Your task to perform on an android device: change text size in settings app Image 0: 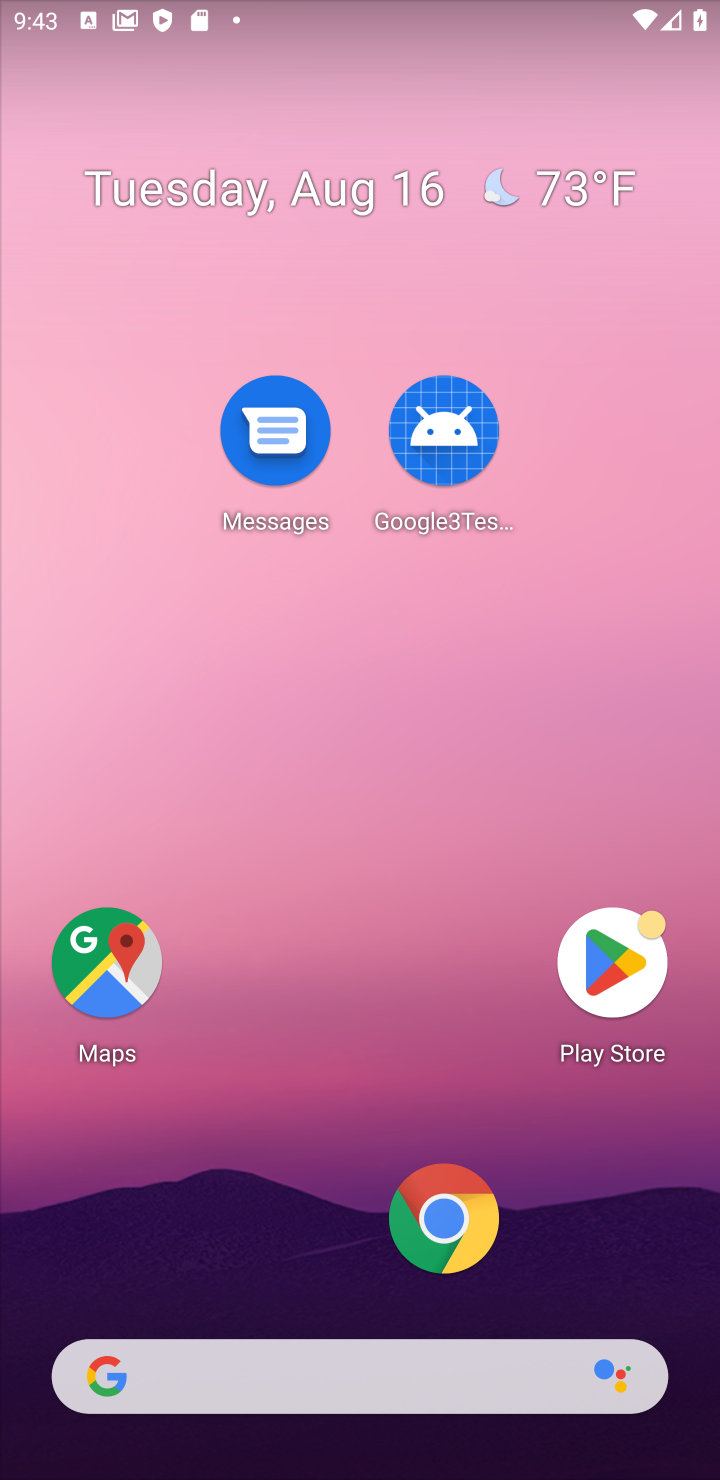
Step 0: drag from (335, 402) to (305, 37)
Your task to perform on an android device: change text size in settings app Image 1: 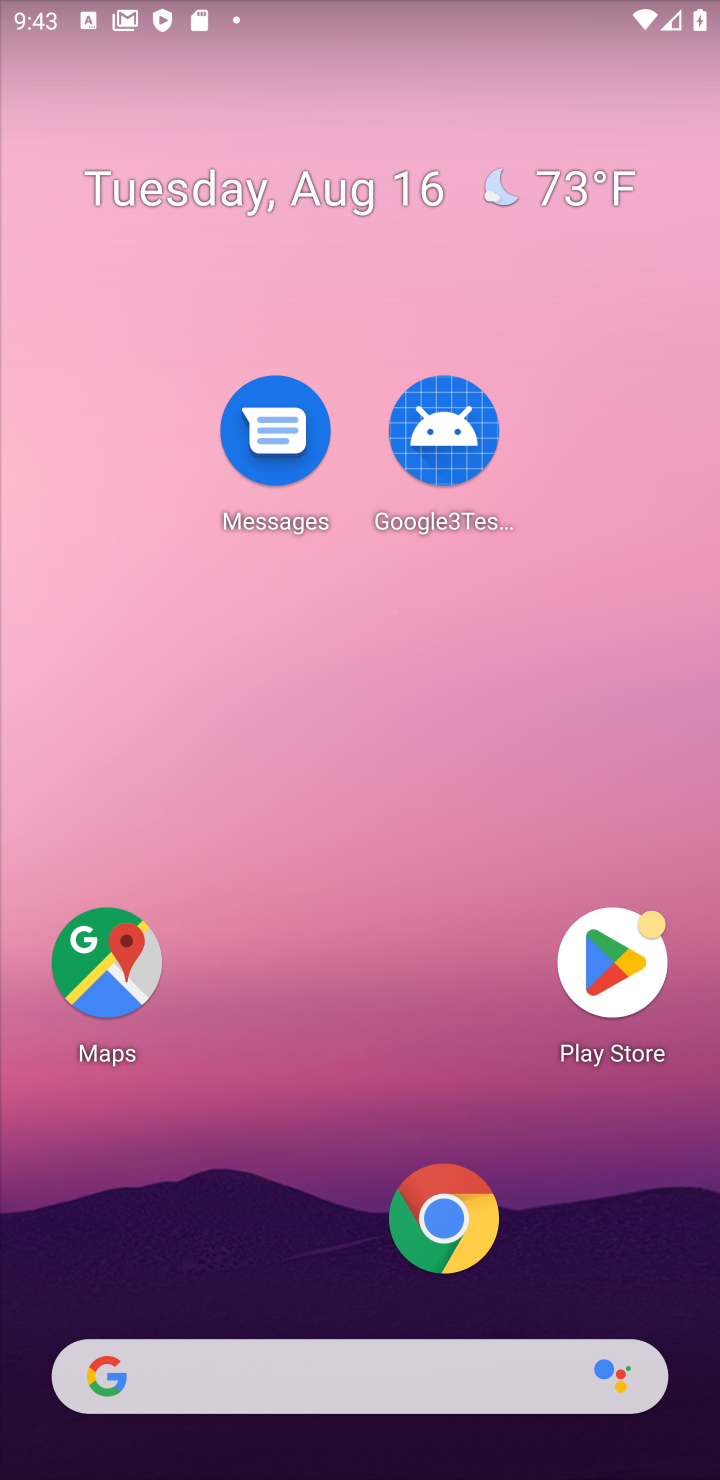
Step 1: drag from (314, 1286) to (408, 151)
Your task to perform on an android device: change text size in settings app Image 2: 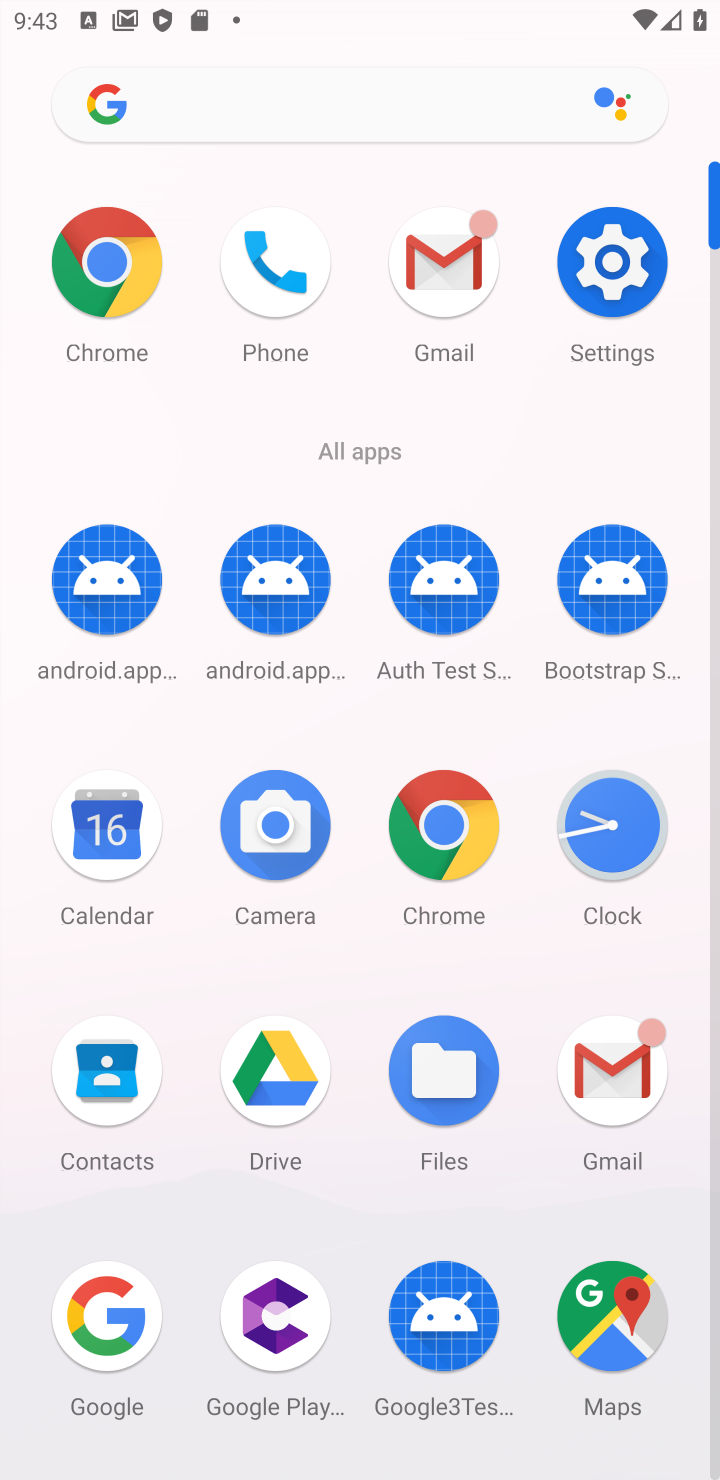
Step 2: click (622, 280)
Your task to perform on an android device: change text size in settings app Image 3: 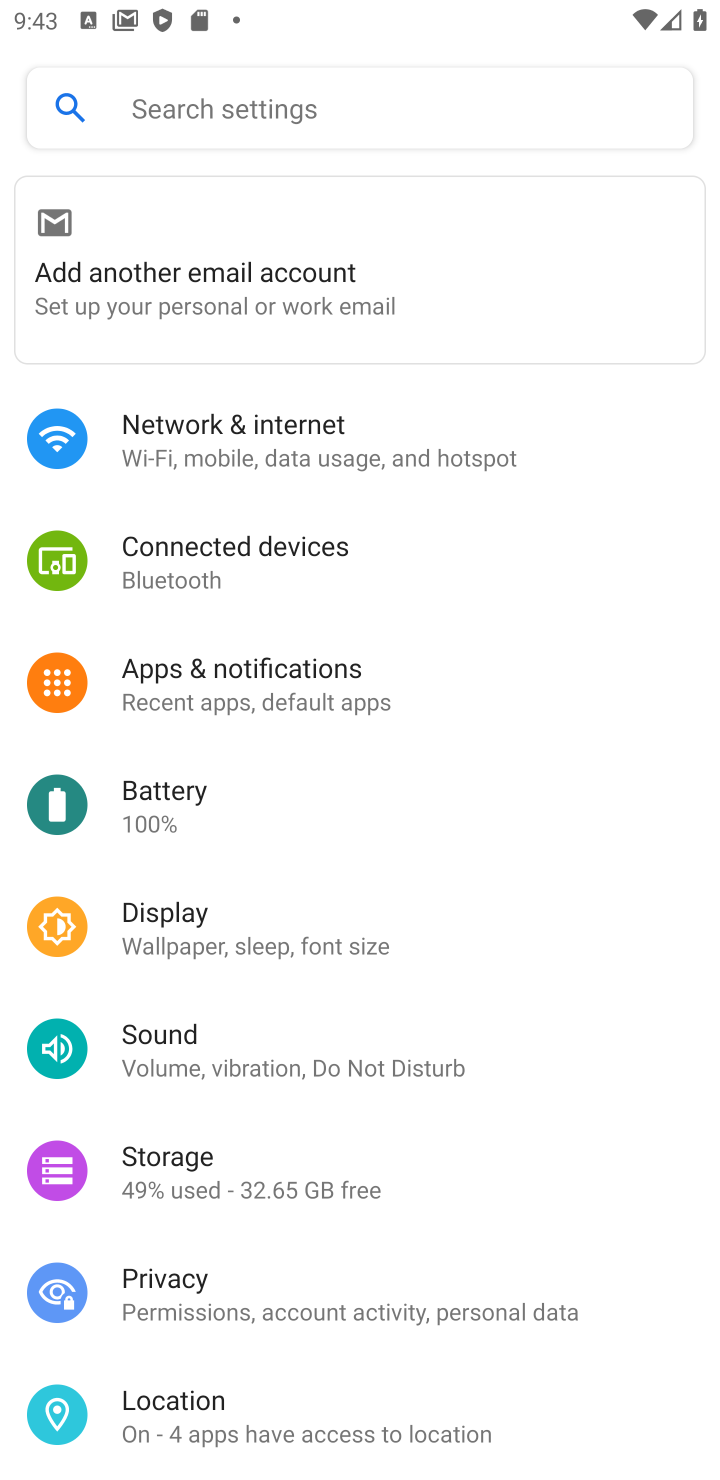
Step 3: click (246, 934)
Your task to perform on an android device: change text size in settings app Image 4: 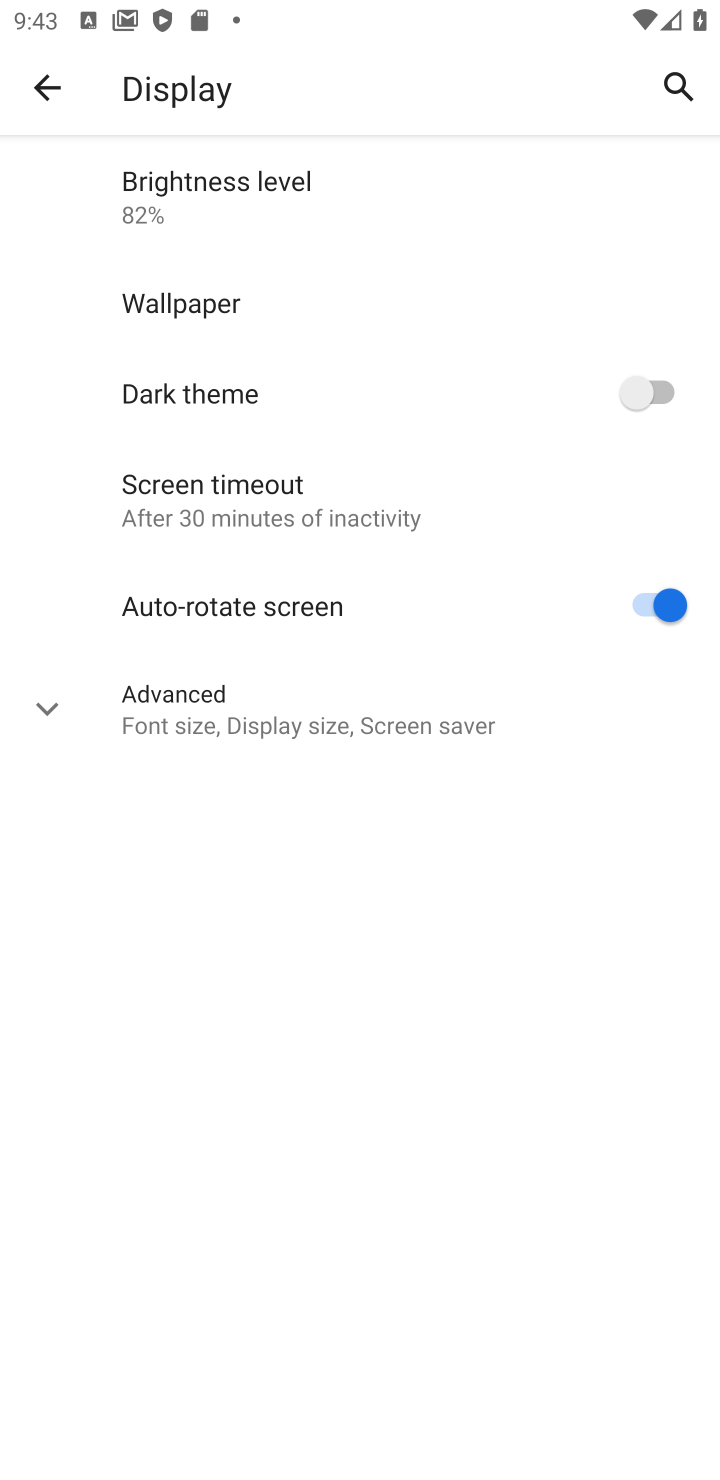
Step 4: click (238, 702)
Your task to perform on an android device: change text size in settings app Image 5: 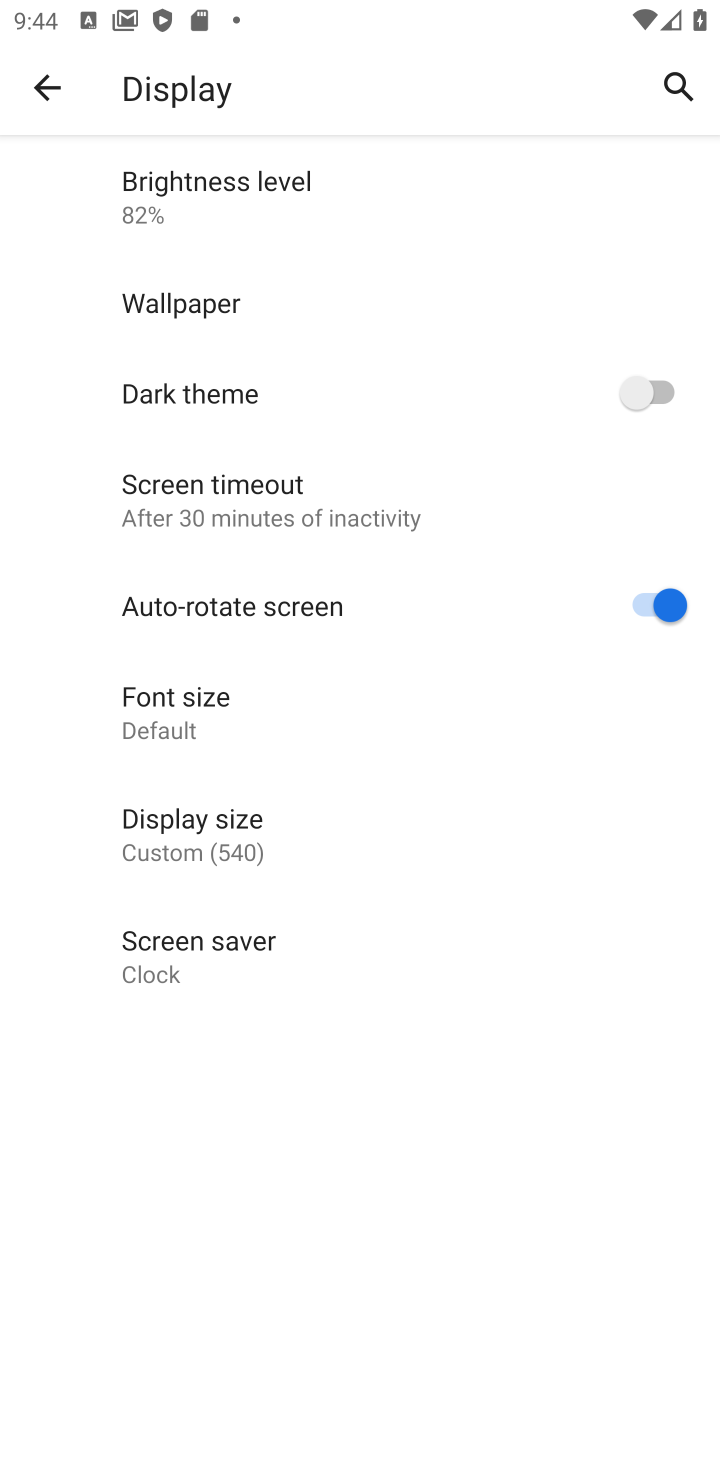
Step 5: click (301, 716)
Your task to perform on an android device: change text size in settings app Image 6: 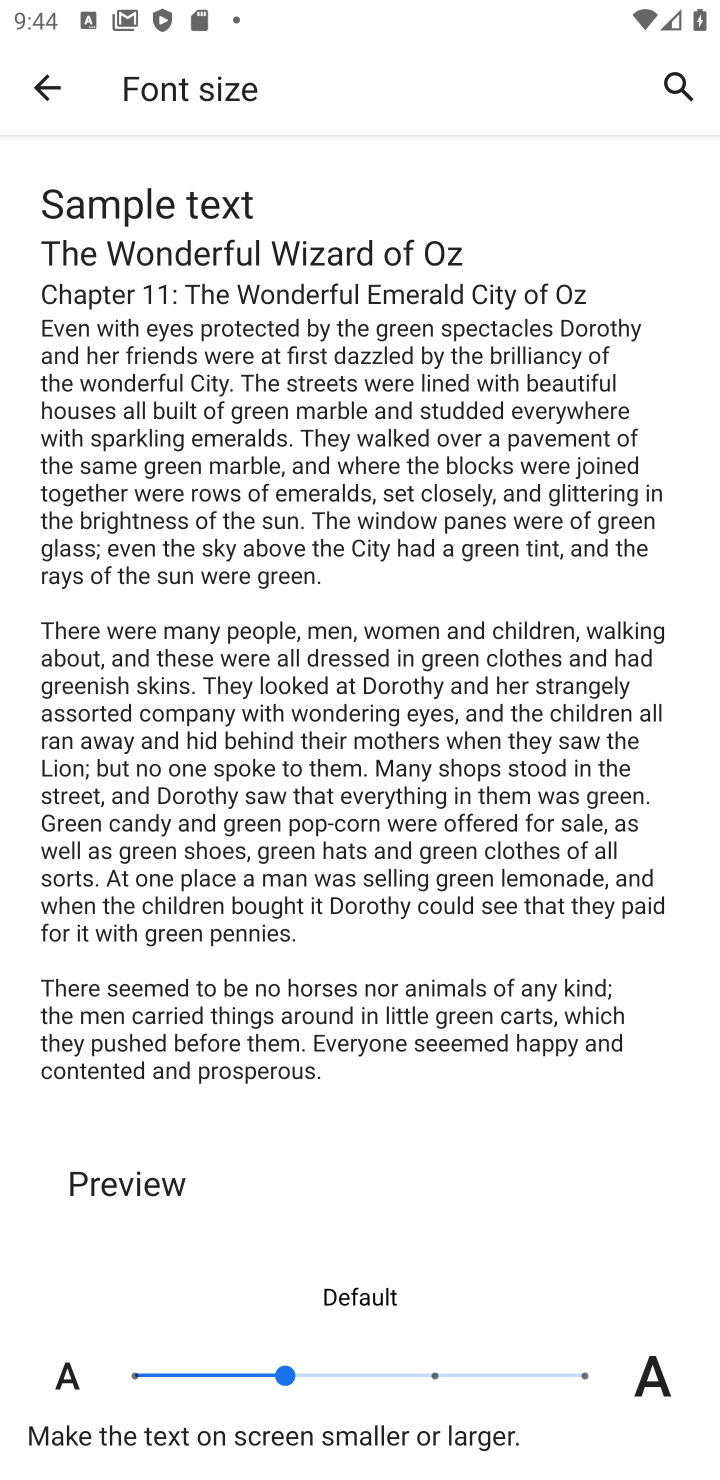
Step 6: click (130, 1370)
Your task to perform on an android device: change text size in settings app Image 7: 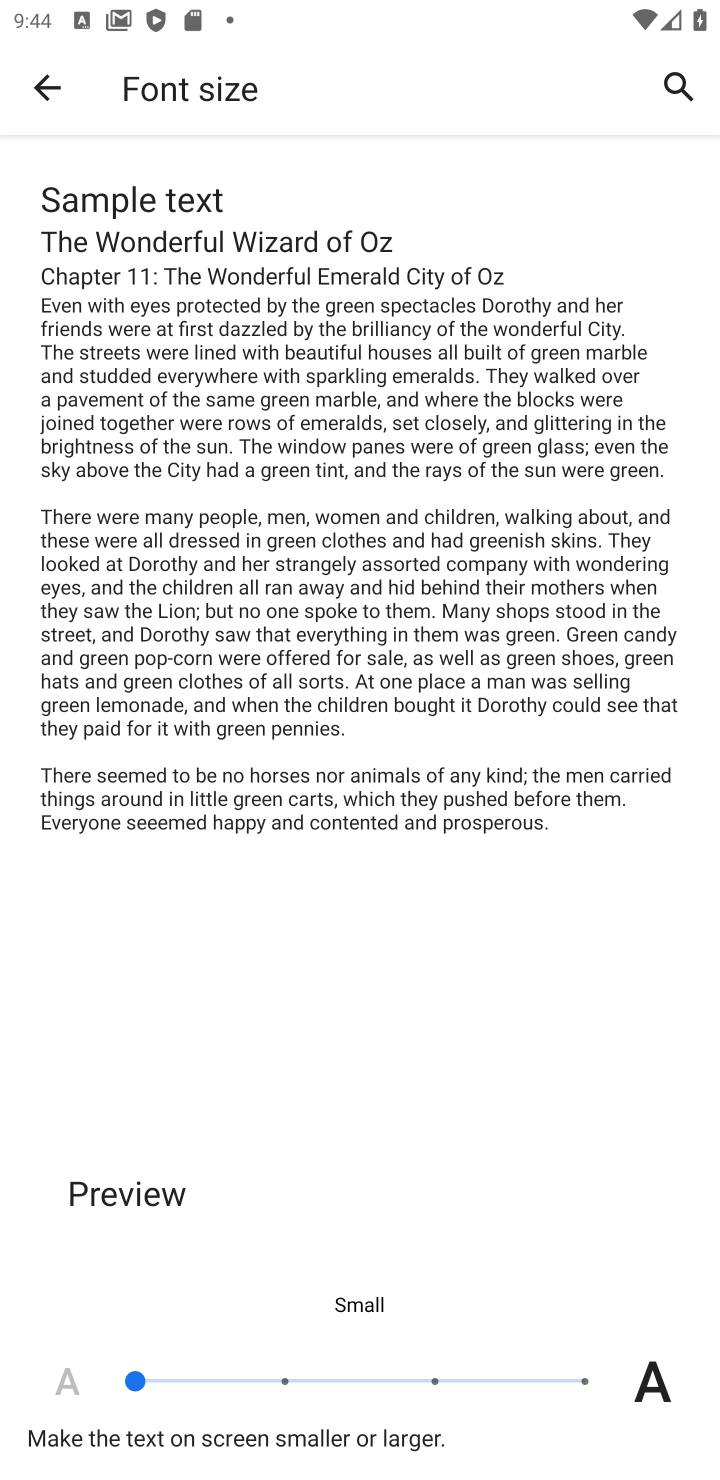
Step 7: task complete